Your task to perform on an android device: Turn off the flashlight Image 0: 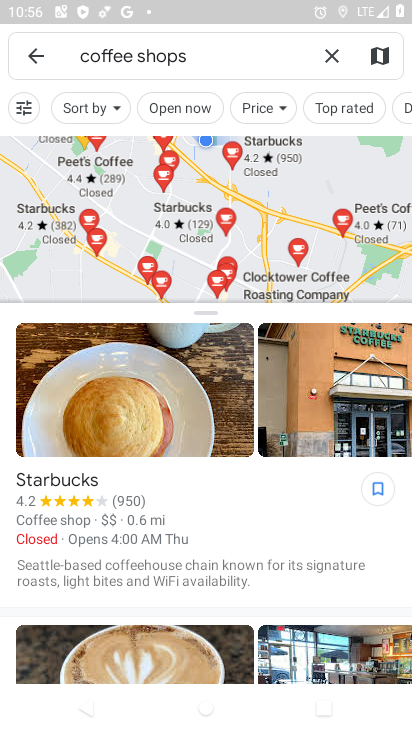
Step 0: press home button
Your task to perform on an android device: Turn off the flashlight Image 1: 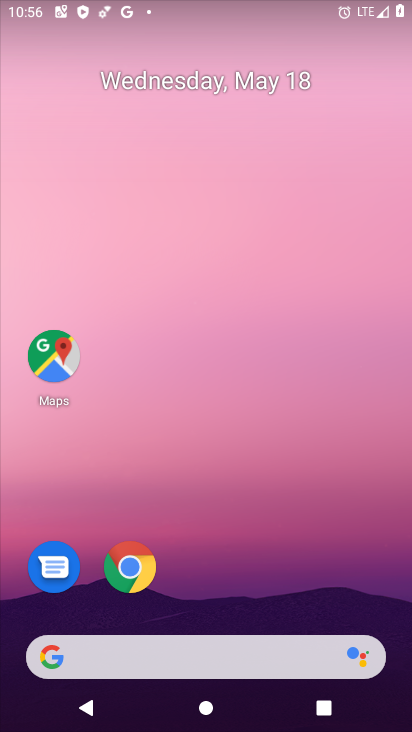
Step 1: task complete